Your task to perform on an android device: turn off notifications settings in the gmail app Image 0: 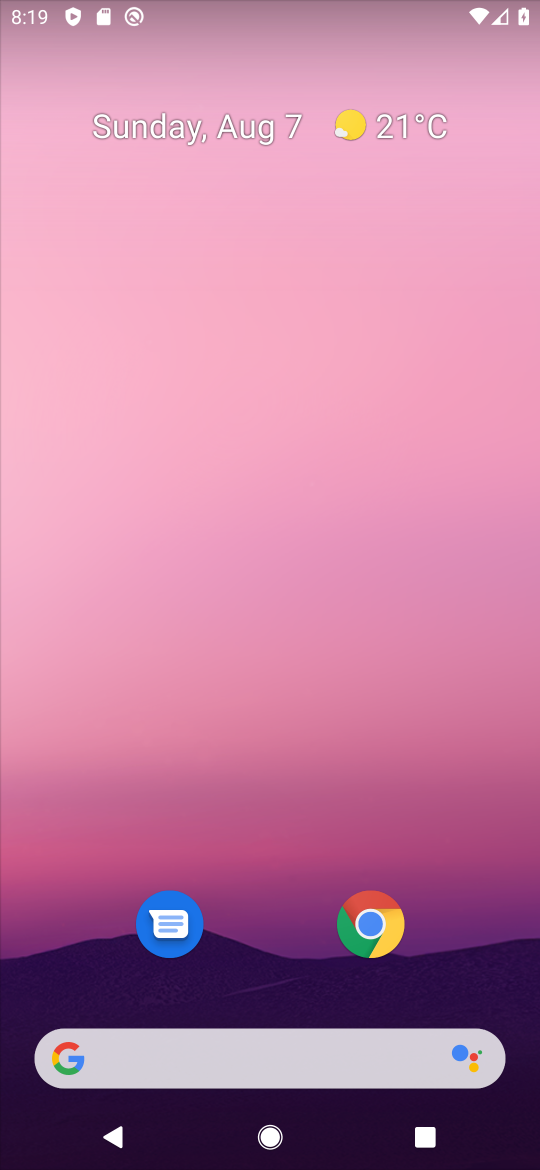
Step 0: drag from (266, 904) to (310, 16)
Your task to perform on an android device: turn off notifications settings in the gmail app Image 1: 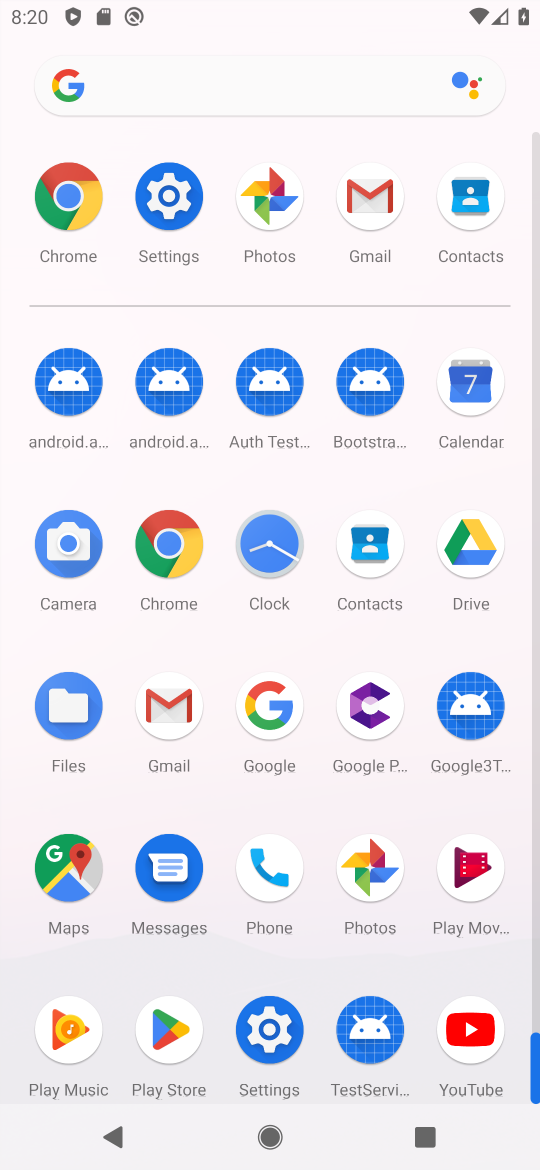
Step 1: click (374, 202)
Your task to perform on an android device: turn off notifications settings in the gmail app Image 2: 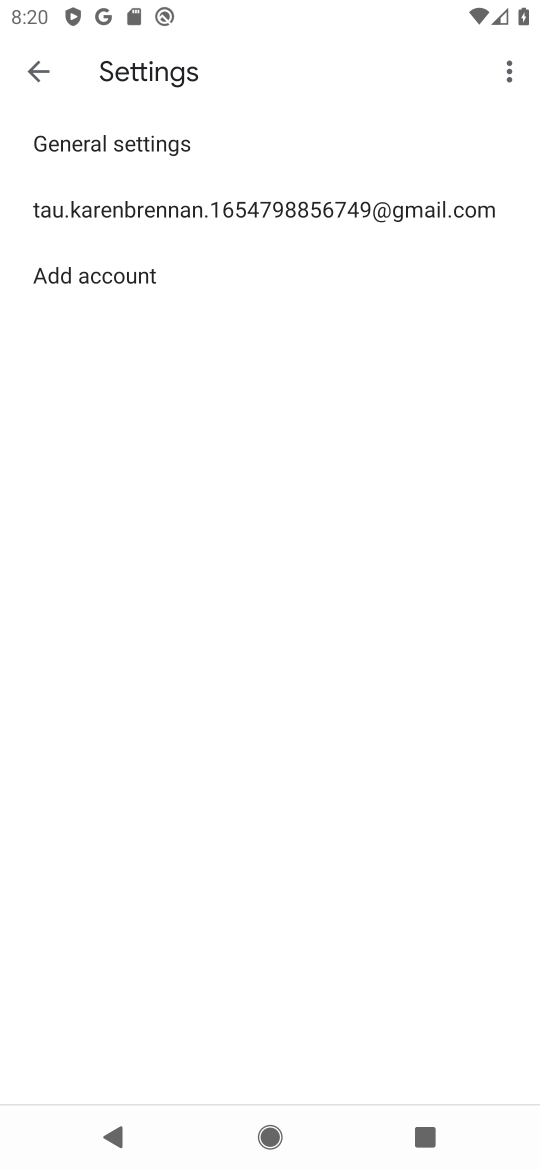
Step 2: click (374, 202)
Your task to perform on an android device: turn off notifications settings in the gmail app Image 3: 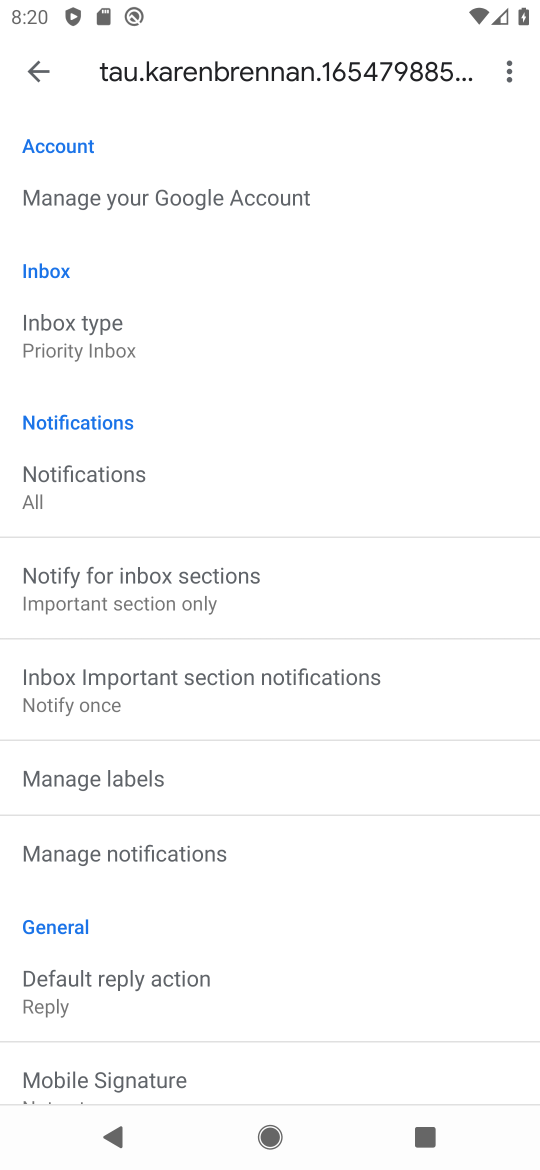
Step 3: click (325, 840)
Your task to perform on an android device: turn off notifications settings in the gmail app Image 4: 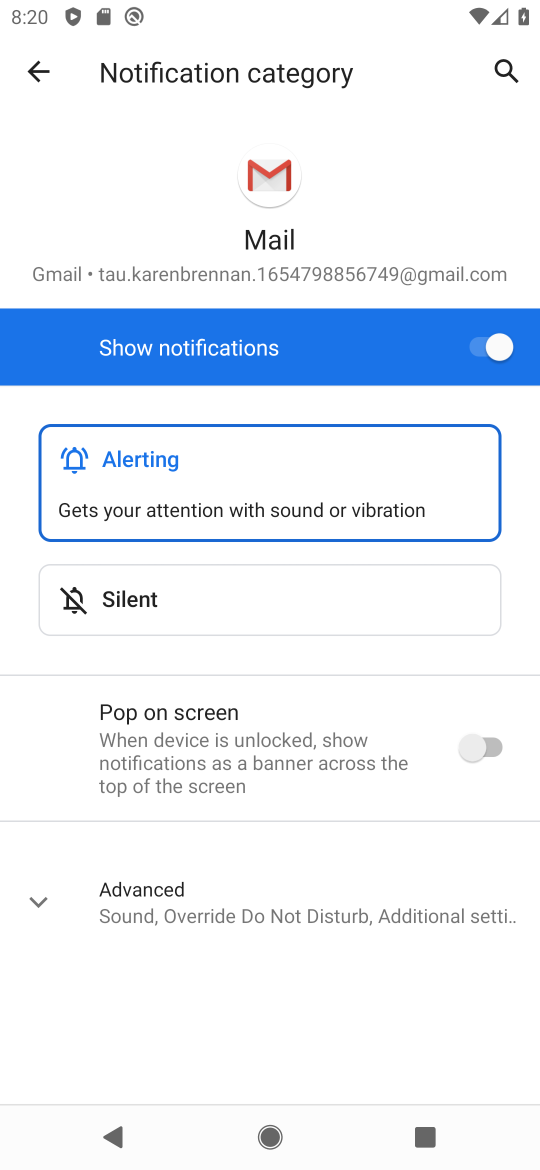
Step 4: click (489, 332)
Your task to perform on an android device: turn off notifications settings in the gmail app Image 5: 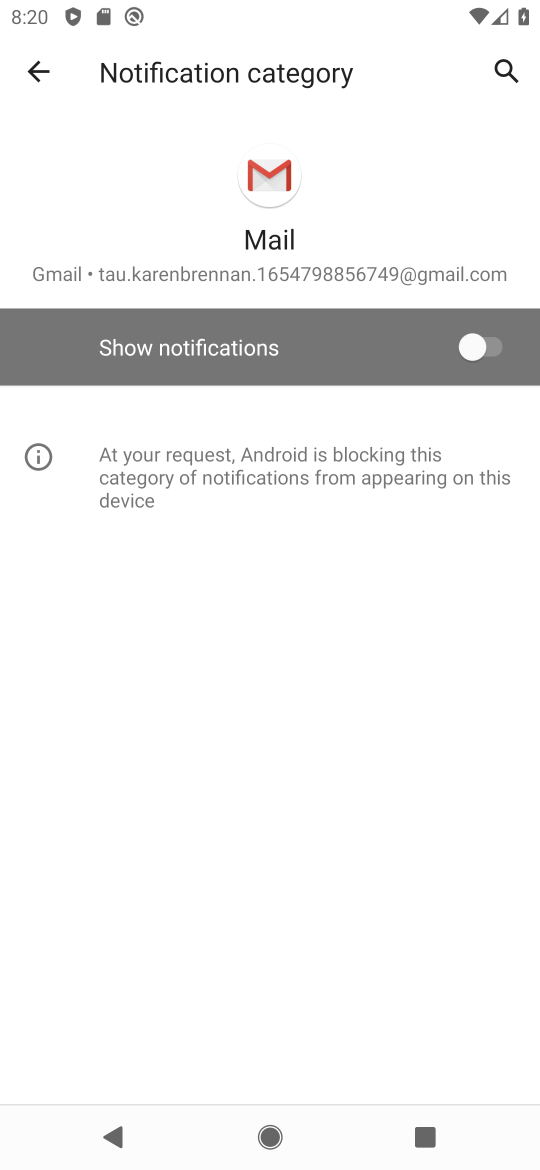
Step 5: task complete